Your task to perform on an android device: Go to location settings Image 0: 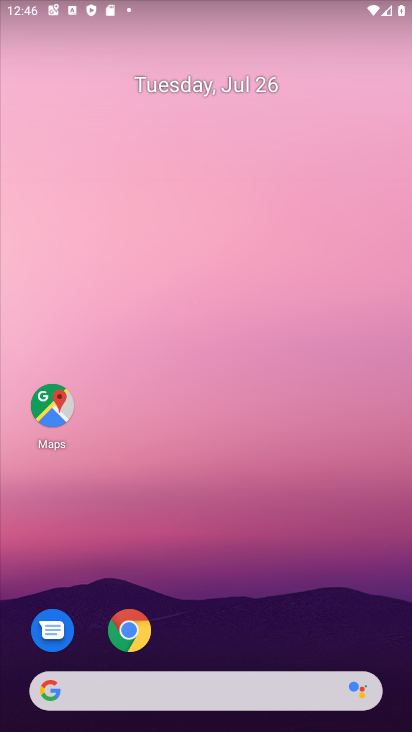
Step 0: drag from (386, 622) to (345, 295)
Your task to perform on an android device: Go to location settings Image 1: 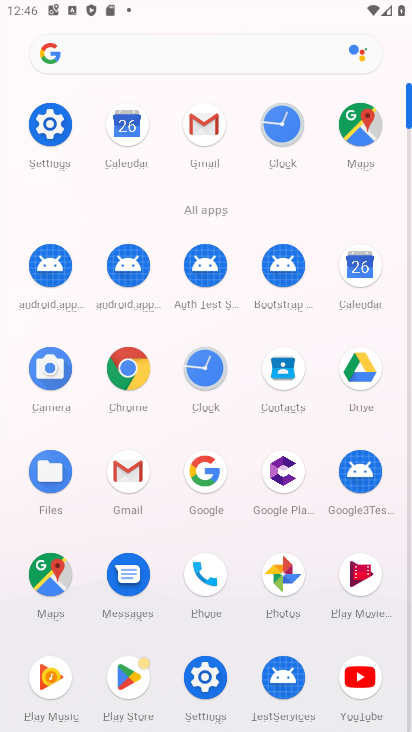
Step 1: click (204, 679)
Your task to perform on an android device: Go to location settings Image 2: 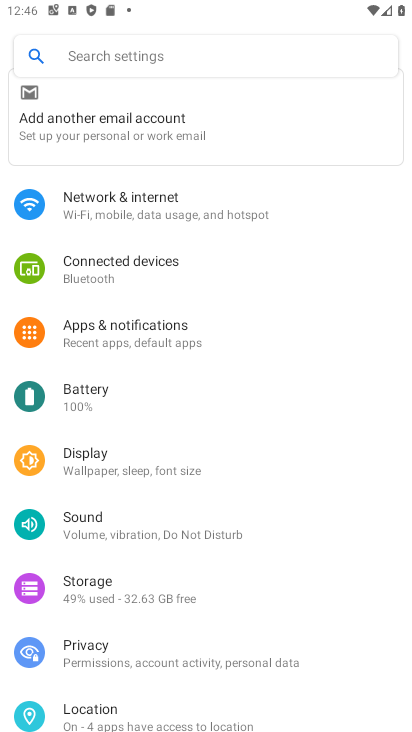
Step 2: drag from (284, 692) to (285, 202)
Your task to perform on an android device: Go to location settings Image 3: 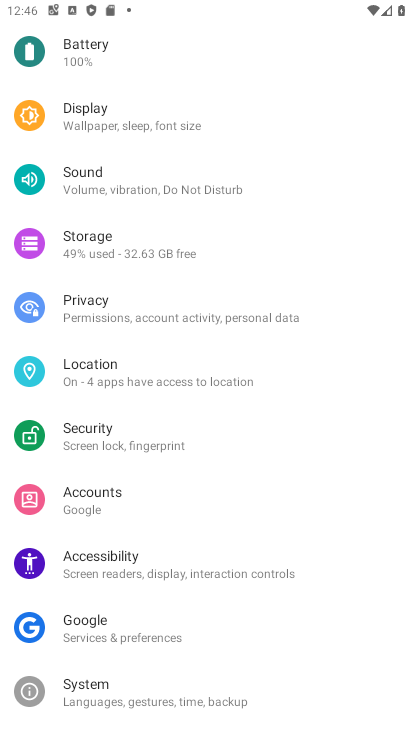
Step 3: click (97, 369)
Your task to perform on an android device: Go to location settings Image 4: 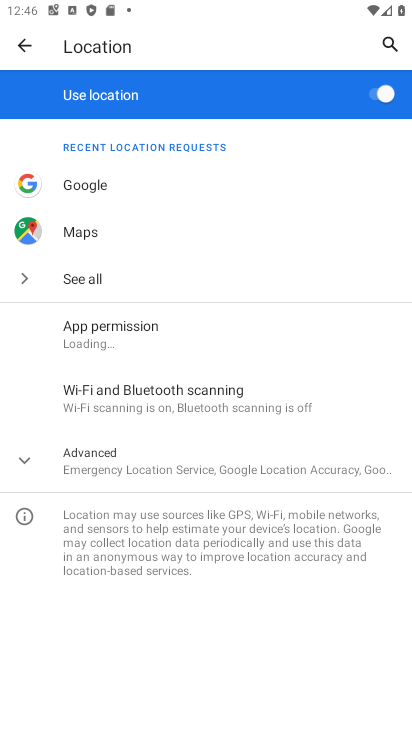
Step 4: click (15, 456)
Your task to perform on an android device: Go to location settings Image 5: 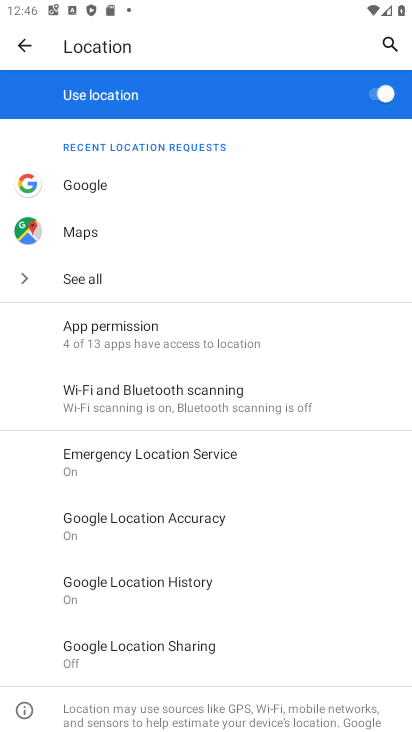
Step 5: task complete